Your task to perform on an android device: What's on my calendar tomorrow? Image 0: 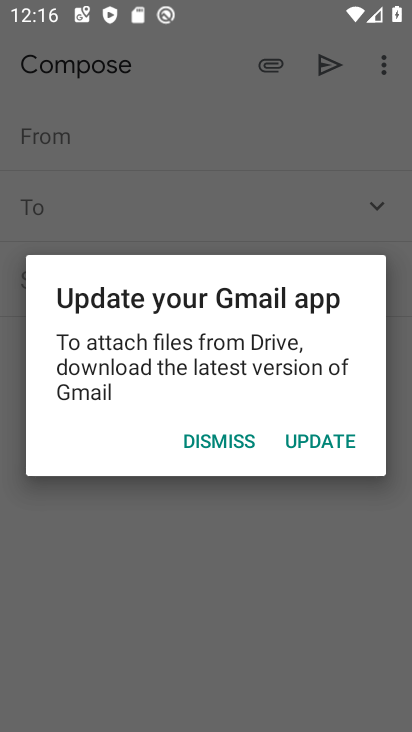
Step 0: press home button
Your task to perform on an android device: What's on my calendar tomorrow? Image 1: 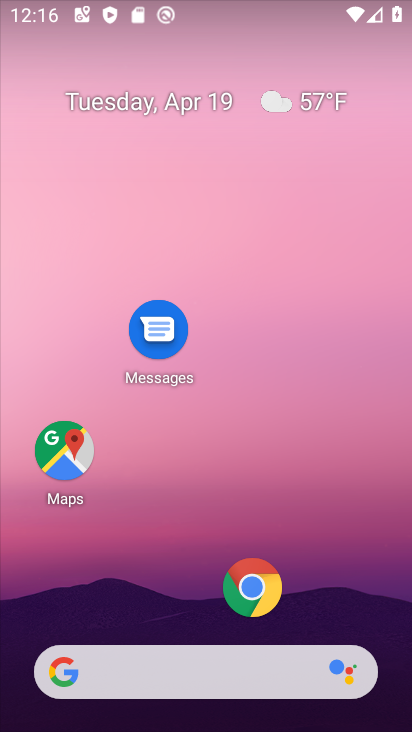
Step 1: drag from (192, 595) to (155, 195)
Your task to perform on an android device: What's on my calendar tomorrow? Image 2: 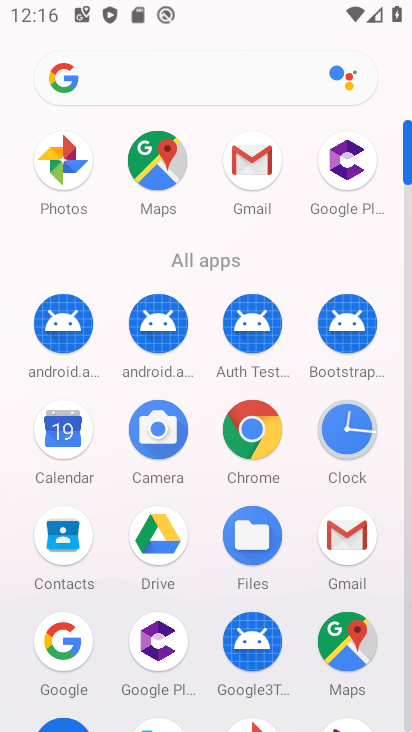
Step 2: click (61, 431)
Your task to perform on an android device: What's on my calendar tomorrow? Image 3: 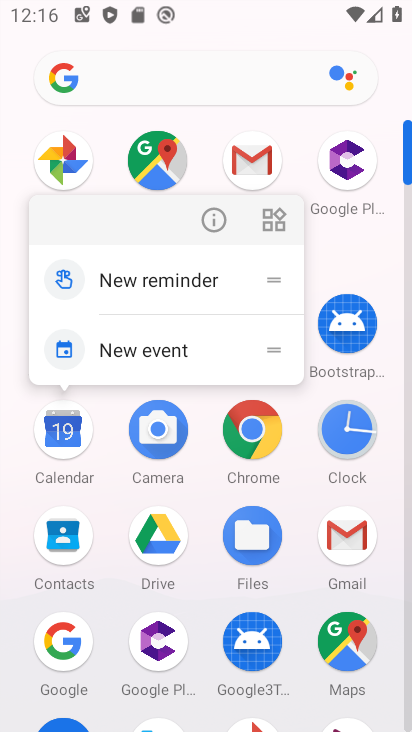
Step 3: click (66, 437)
Your task to perform on an android device: What's on my calendar tomorrow? Image 4: 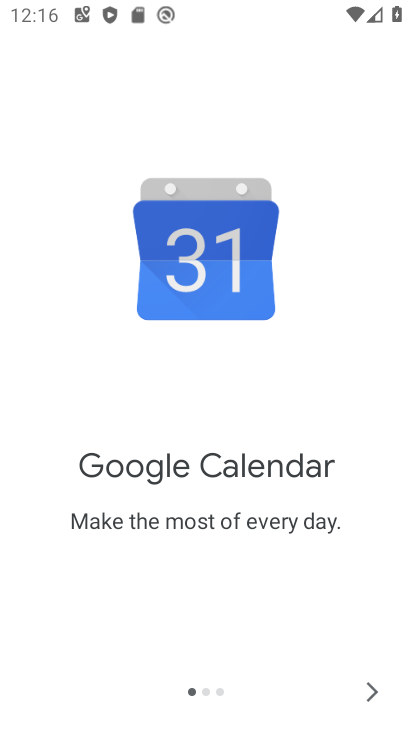
Step 4: click (363, 705)
Your task to perform on an android device: What's on my calendar tomorrow? Image 5: 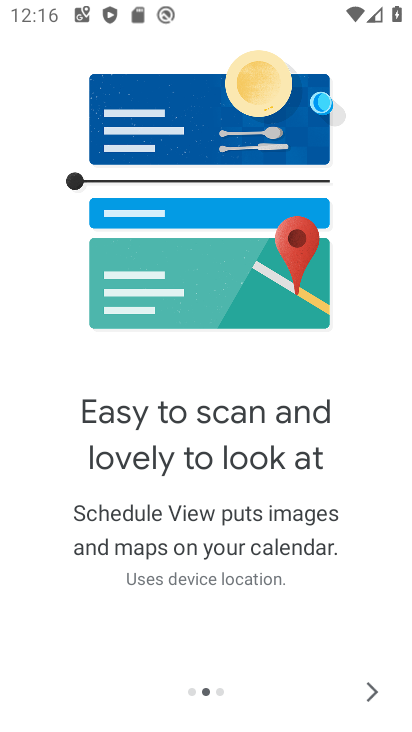
Step 5: click (363, 704)
Your task to perform on an android device: What's on my calendar tomorrow? Image 6: 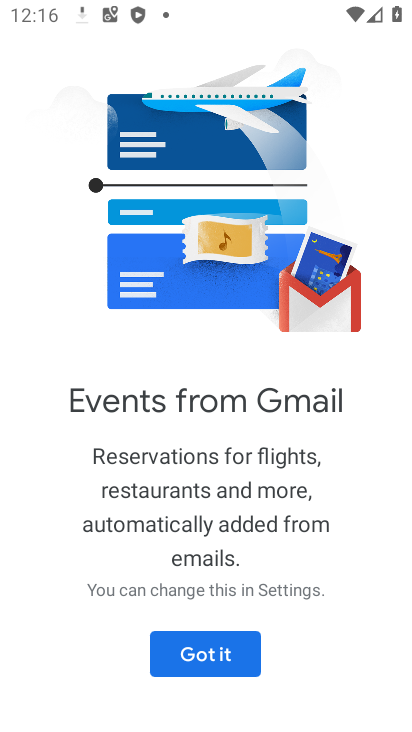
Step 6: click (363, 704)
Your task to perform on an android device: What's on my calendar tomorrow? Image 7: 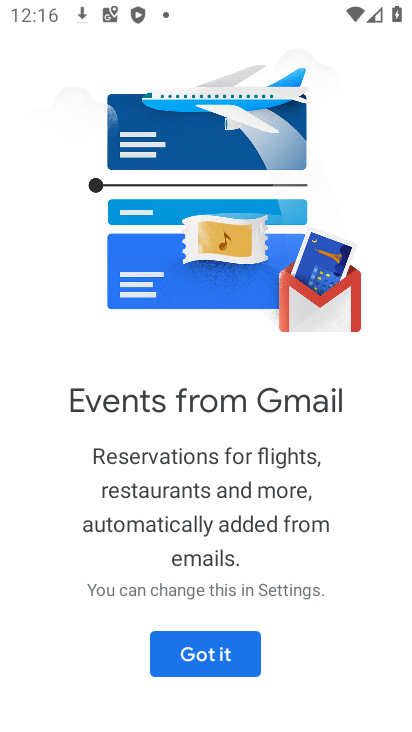
Step 7: click (206, 663)
Your task to perform on an android device: What's on my calendar tomorrow? Image 8: 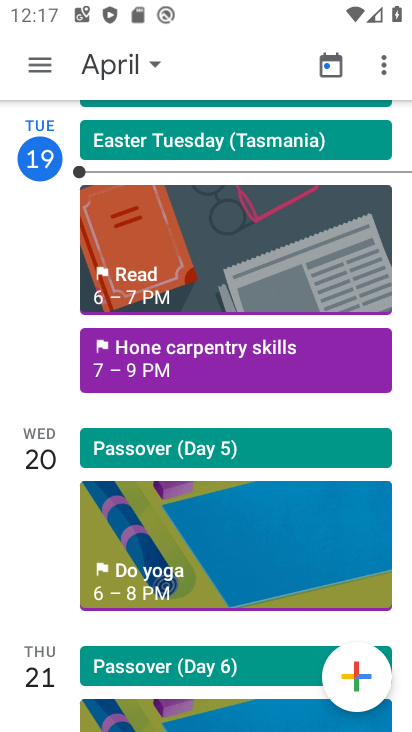
Step 8: click (151, 65)
Your task to perform on an android device: What's on my calendar tomorrow? Image 9: 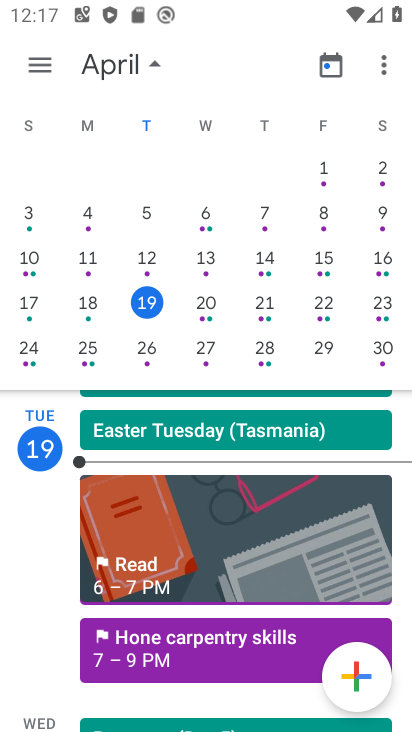
Step 9: click (202, 305)
Your task to perform on an android device: What's on my calendar tomorrow? Image 10: 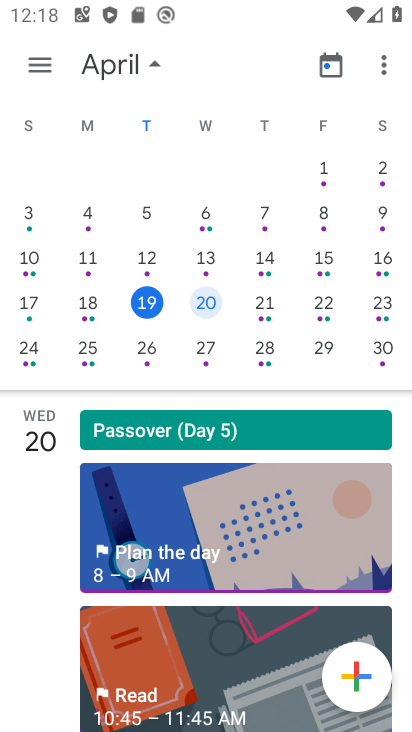
Step 10: task complete